Your task to perform on an android device: set the stopwatch Image 0: 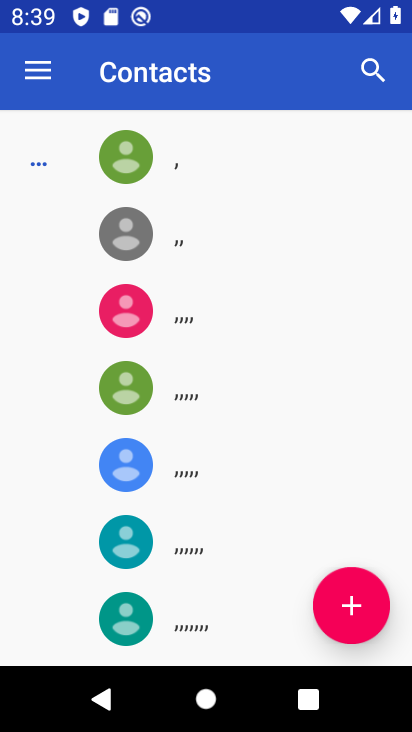
Step 0: press home button
Your task to perform on an android device: set the stopwatch Image 1: 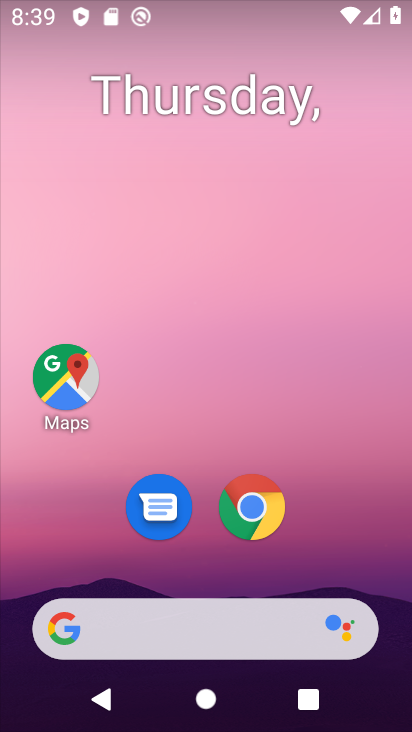
Step 1: drag from (193, 398) to (177, 6)
Your task to perform on an android device: set the stopwatch Image 2: 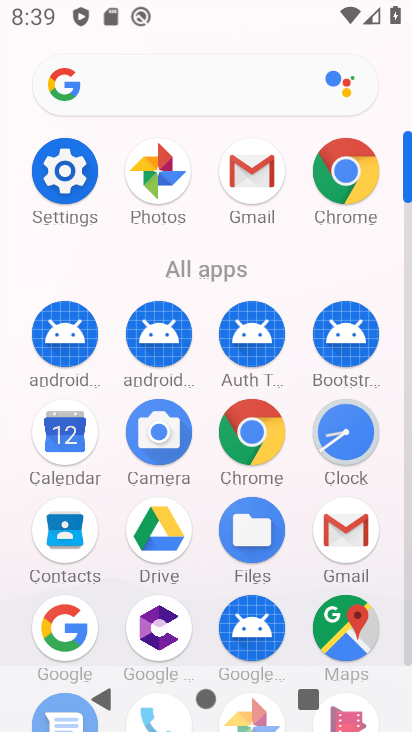
Step 2: click (333, 434)
Your task to perform on an android device: set the stopwatch Image 3: 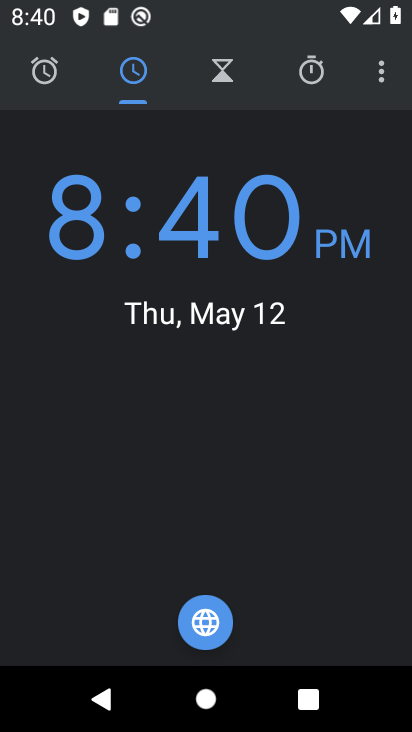
Step 3: click (310, 93)
Your task to perform on an android device: set the stopwatch Image 4: 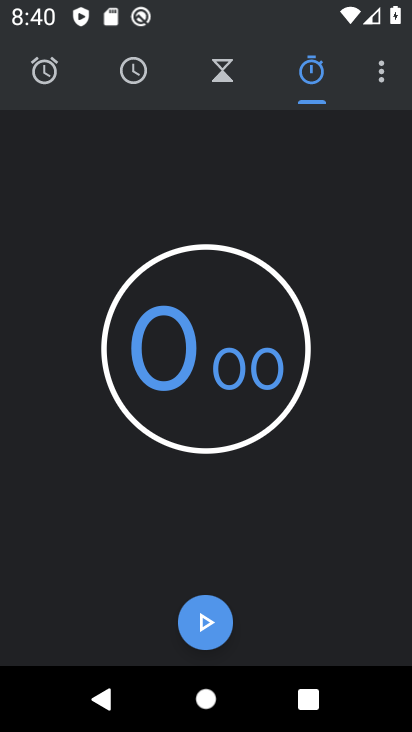
Step 4: click (212, 616)
Your task to perform on an android device: set the stopwatch Image 5: 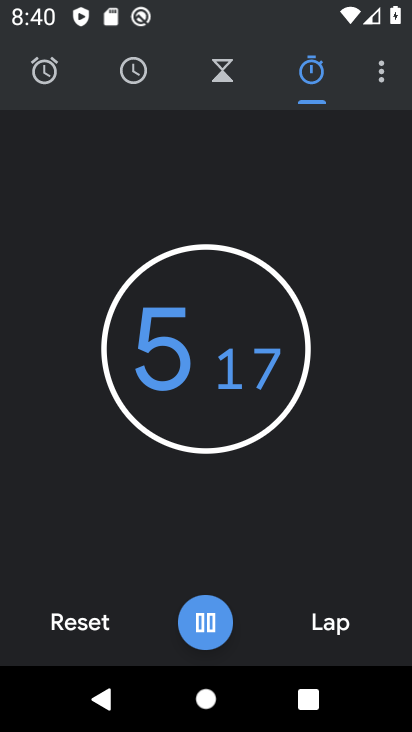
Step 5: task complete